Your task to perform on an android device: turn notification dots on Image 0: 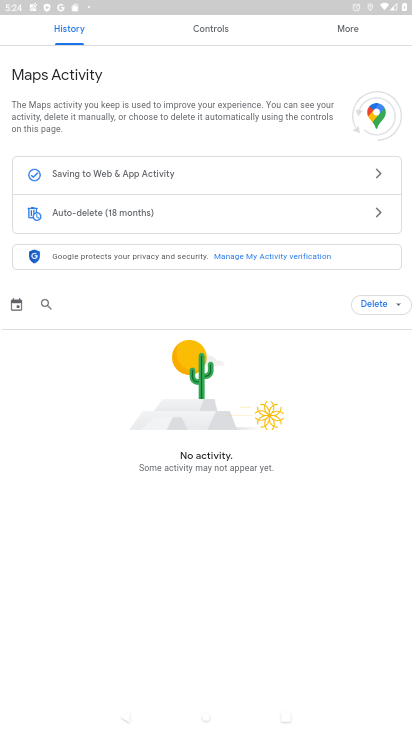
Step 0: press home button
Your task to perform on an android device: turn notification dots on Image 1: 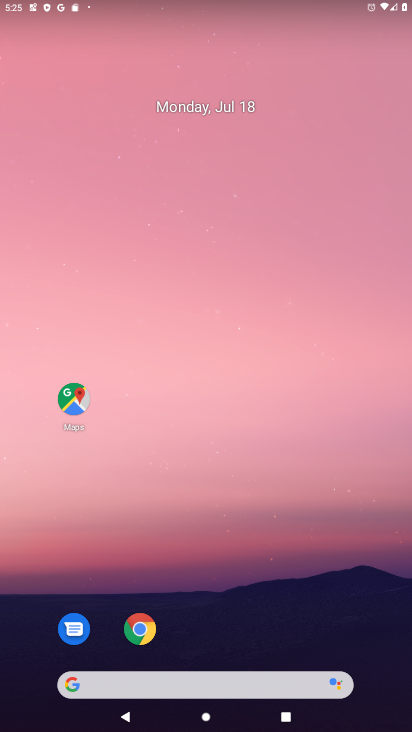
Step 1: drag from (260, 508) to (287, 3)
Your task to perform on an android device: turn notification dots on Image 2: 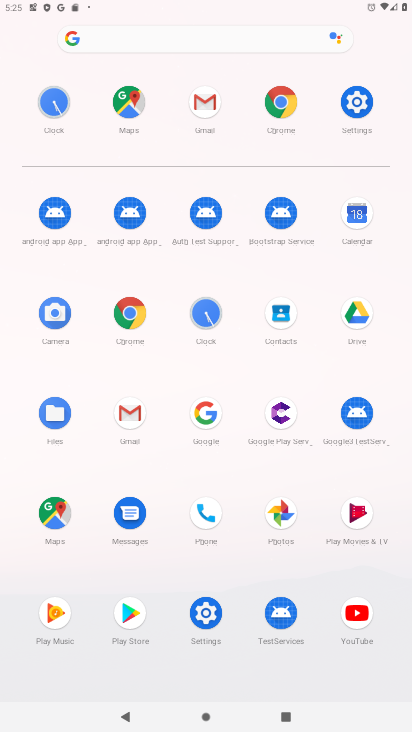
Step 2: click (358, 100)
Your task to perform on an android device: turn notification dots on Image 3: 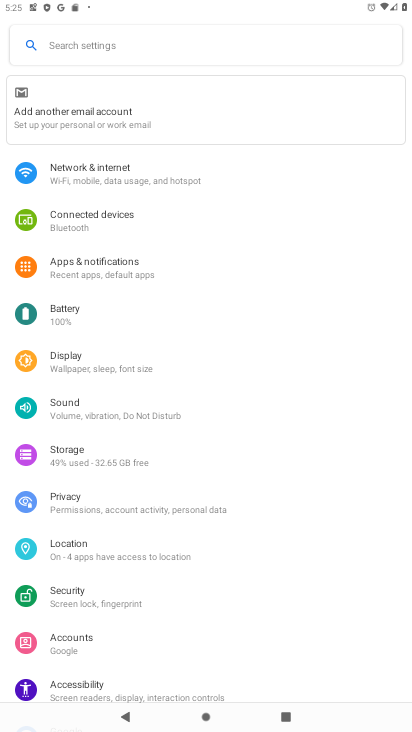
Step 3: click (128, 264)
Your task to perform on an android device: turn notification dots on Image 4: 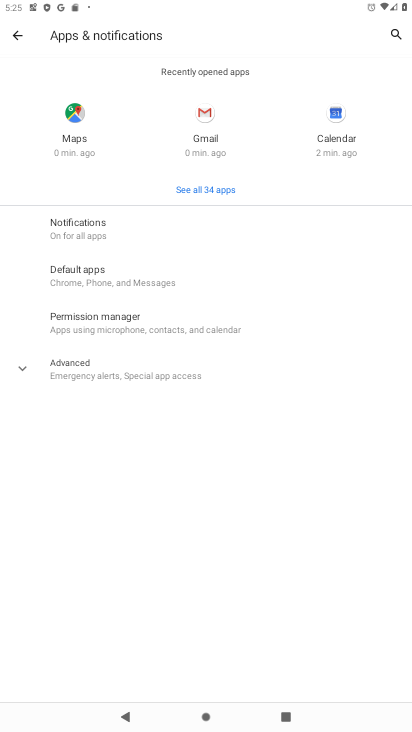
Step 4: click (105, 235)
Your task to perform on an android device: turn notification dots on Image 5: 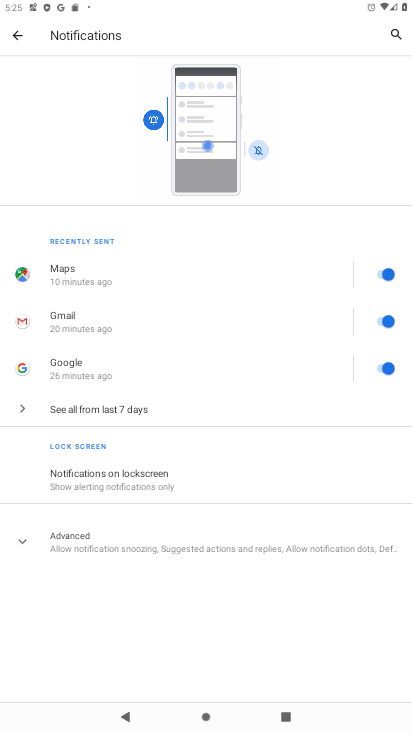
Step 5: click (66, 550)
Your task to perform on an android device: turn notification dots on Image 6: 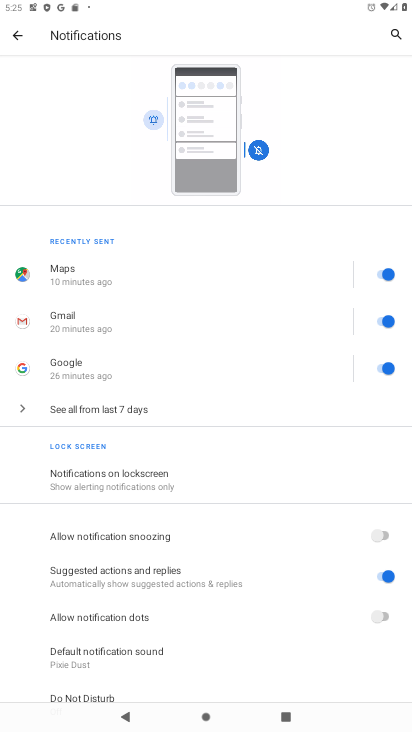
Step 6: click (385, 612)
Your task to perform on an android device: turn notification dots on Image 7: 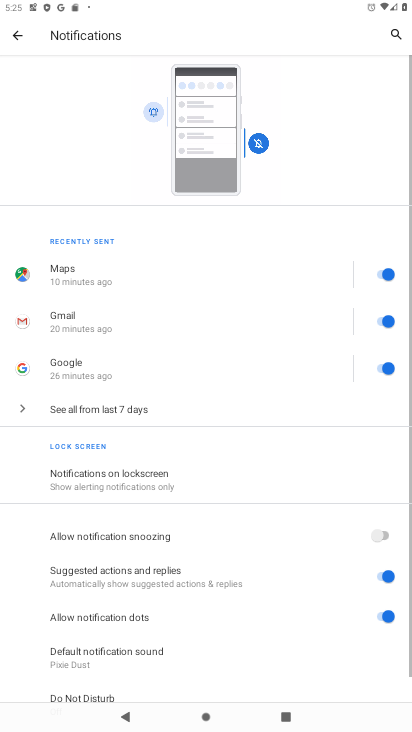
Step 7: task complete